Your task to perform on an android device: Go to display settings Image 0: 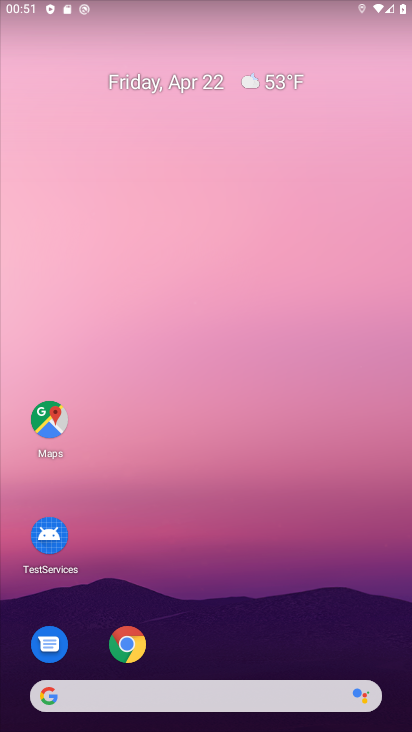
Step 0: drag from (246, 525) to (253, 149)
Your task to perform on an android device: Go to display settings Image 1: 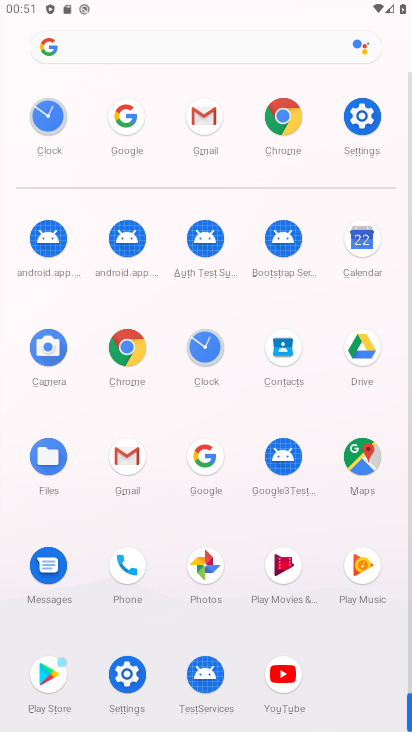
Step 1: click (354, 126)
Your task to perform on an android device: Go to display settings Image 2: 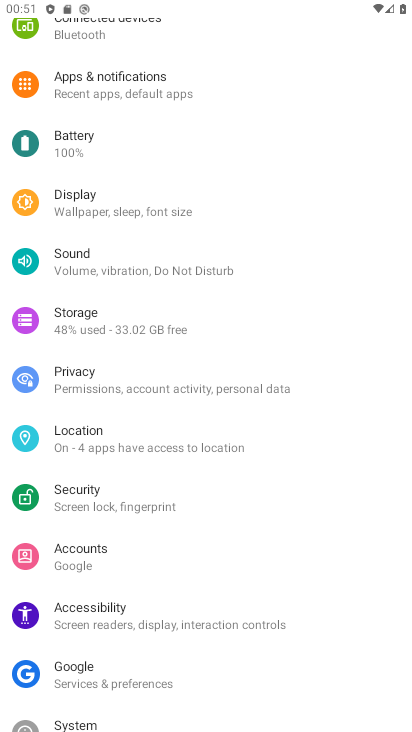
Step 2: click (107, 210)
Your task to perform on an android device: Go to display settings Image 3: 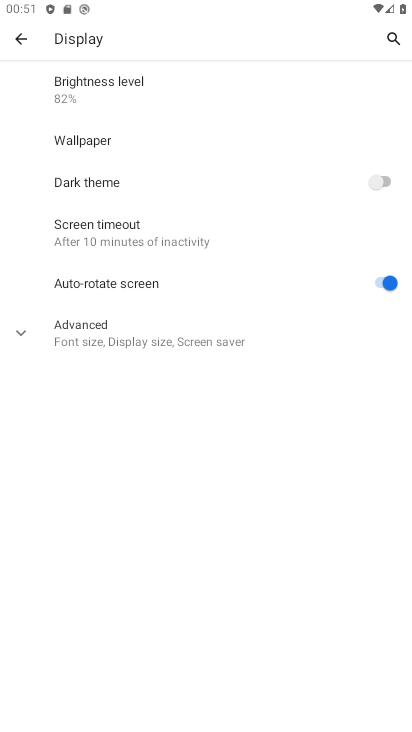
Step 3: task complete